Your task to perform on an android device: turn on priority inbox in the gmail app Image 0: 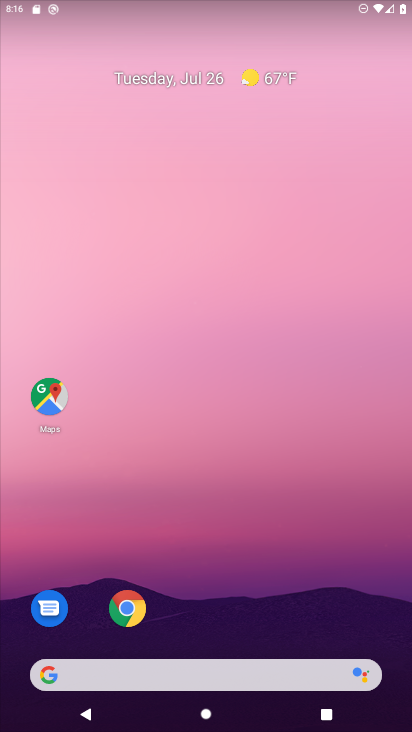
Step 0: drag from (194, 646) to (224, 327)
Your task to perform on an android device: turn on priority inbox in the gmail app Image 1: 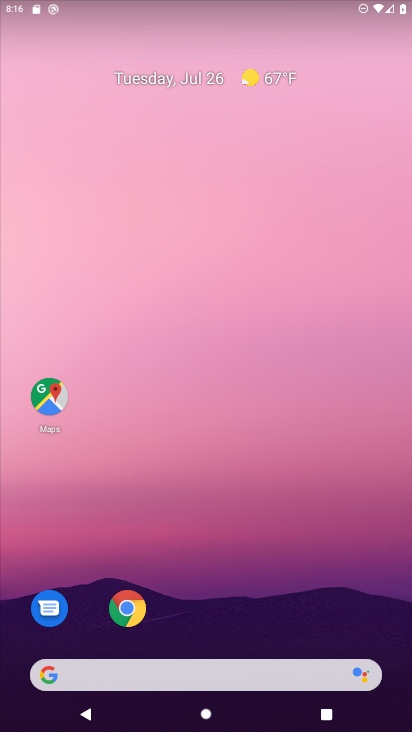
Step 1: drag from (227, 667) to (302, 32)
Your task to perform on an android device: turn on priority inbox in the gmail app Image 2: 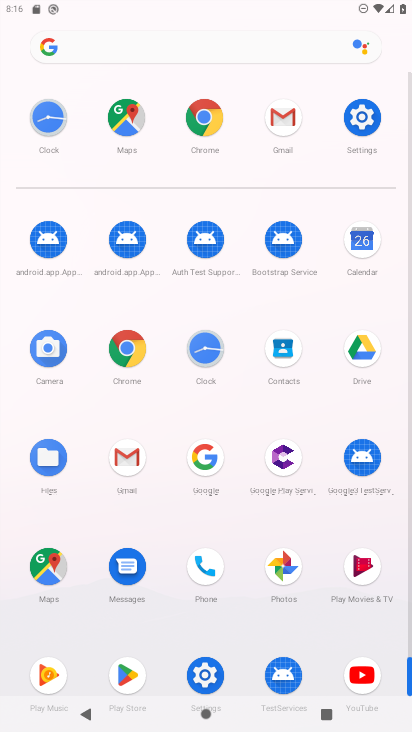
Step 2: click (131, 470)
Your task to perform on an android device: turn on priority inbox in the gmail app Image 3: 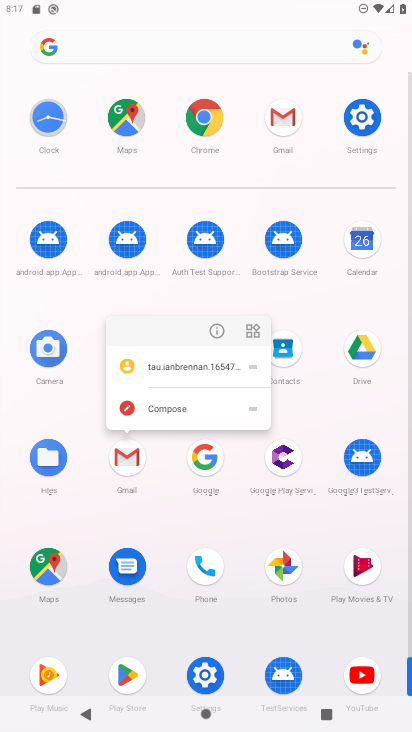
Step 3: click (115, 479)
Your task to perform on an android device: turn on priority inbox in the gmail app Image 4: 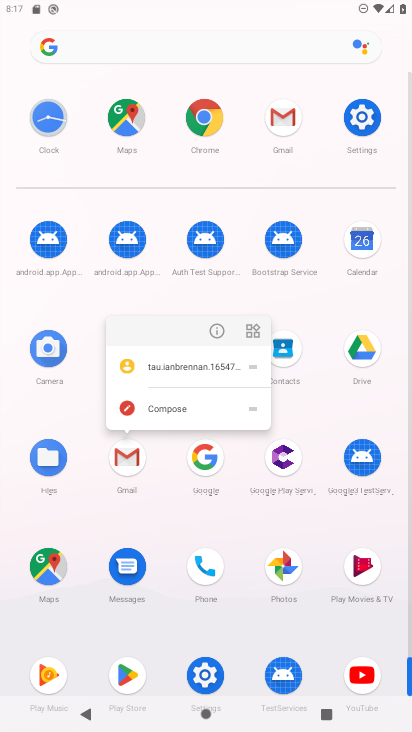
Step 4: click (126, 465)
Your task to perform on an android device: turn on priority inbox in the gmail app Image 5: 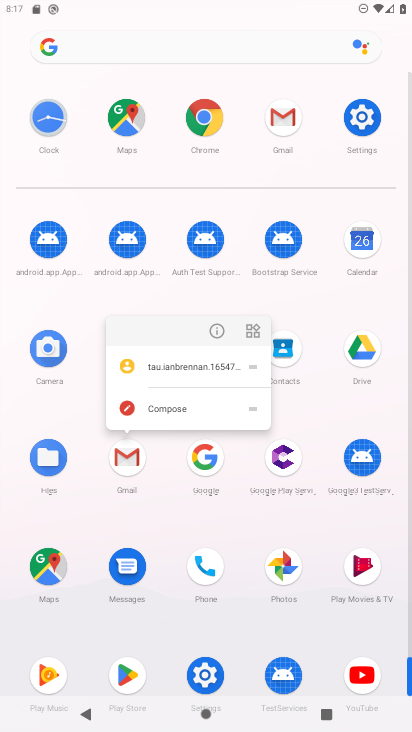
Step 5: click (128, 464)
Your task to perform on an android device: turn on priority inbox in the gmail app Image 6: 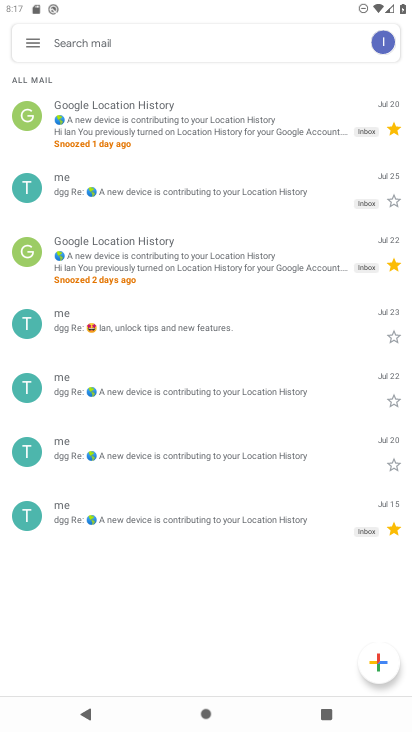
Step 6: click (27, 51)
Your task to perform on an android device: turn on priority inbox in the gmail app Image 7: 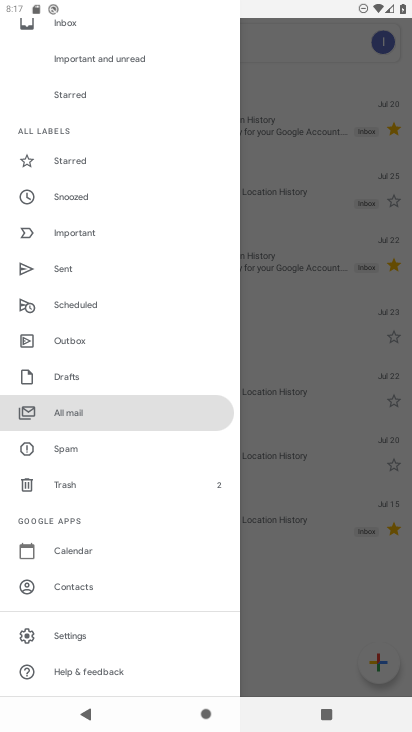
Step 7: click (82, 635)
Your task to perform on an android device: turn on priority inbox in the gmail app Image 8: 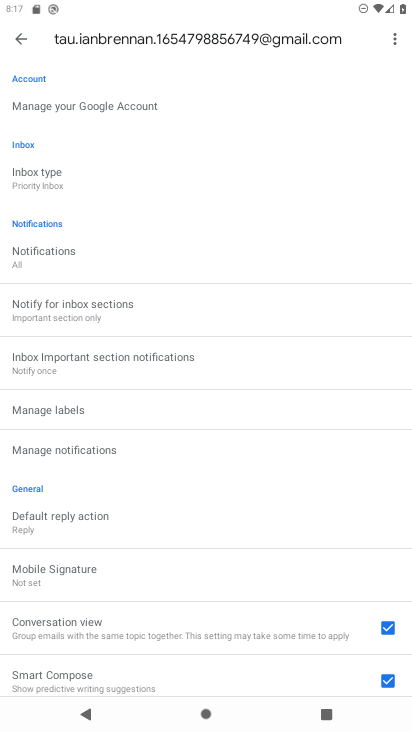
Step 8: click (68, 171)
Your task to perform on an android device: turn on priority inbox in the gmail app Image 9: 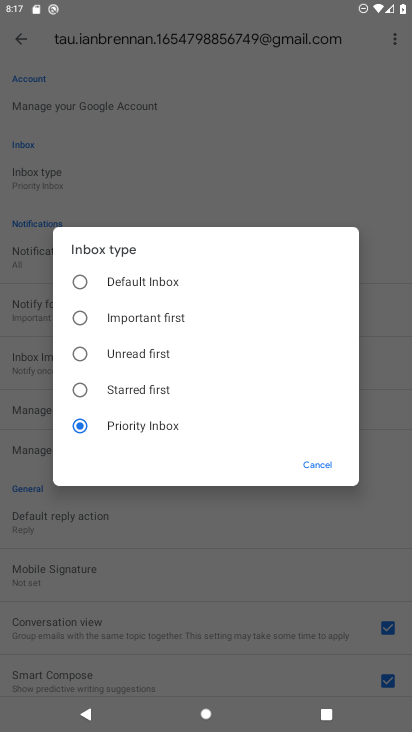
Step 9: task complete